Your task to perform on an android device: turn off location Image 0: 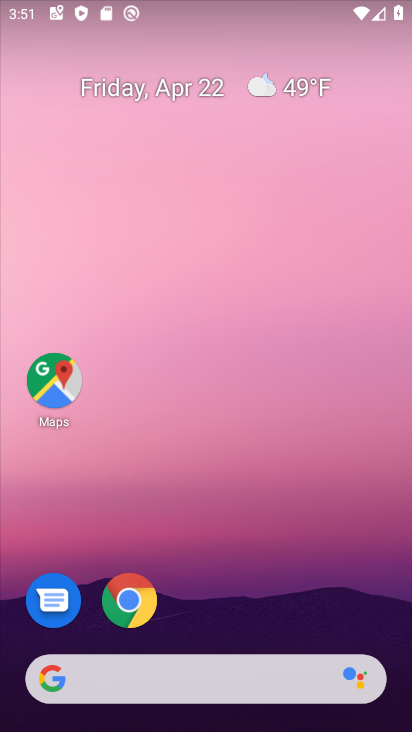
Step 0: drag from (222, 516) to (318, 30)
Your task to perform on an android device: turn off location Image 1: 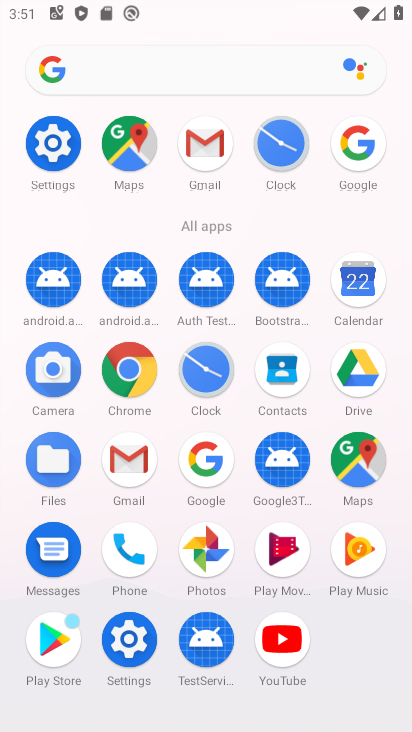
Step 1: drag from (156, 614) to (234, 387)
Your task to perform on an android device: turn off location Image 2: 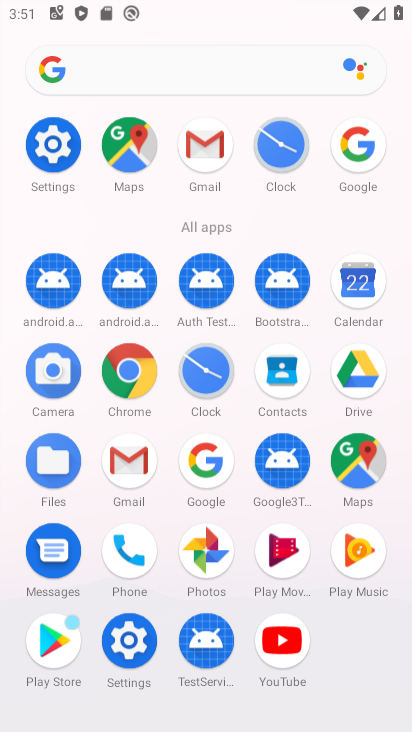
Step 2: click (134, 636)
Your task to perform on an android device: turn off location Image 3: 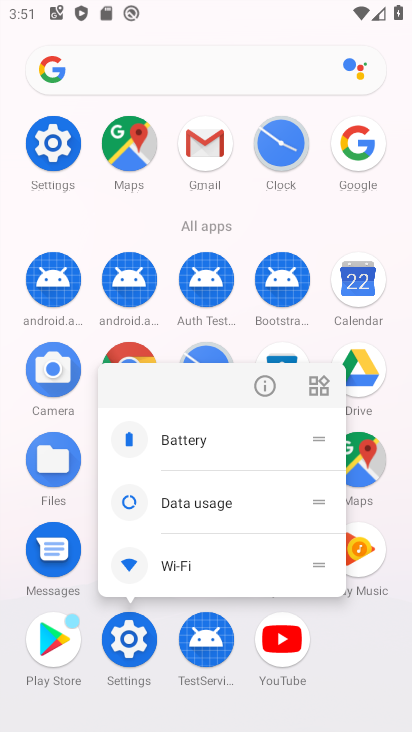
Step 3: click (141, 624)
Your task to perform on an android device: turn off location Image 4: 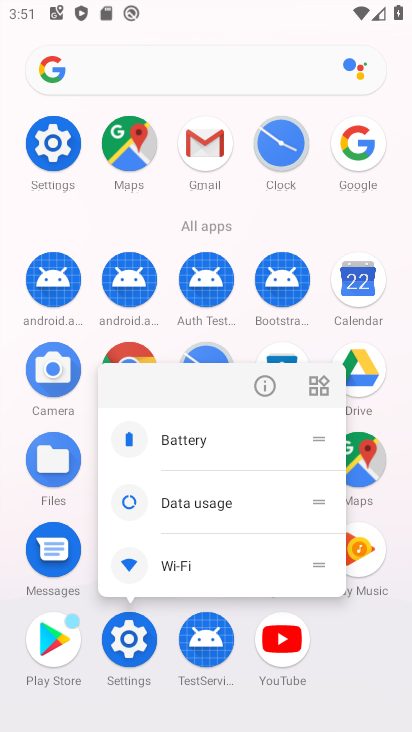
Step 4: click (128, 631)
Your task to perform on an android device: turn off location Image 5: 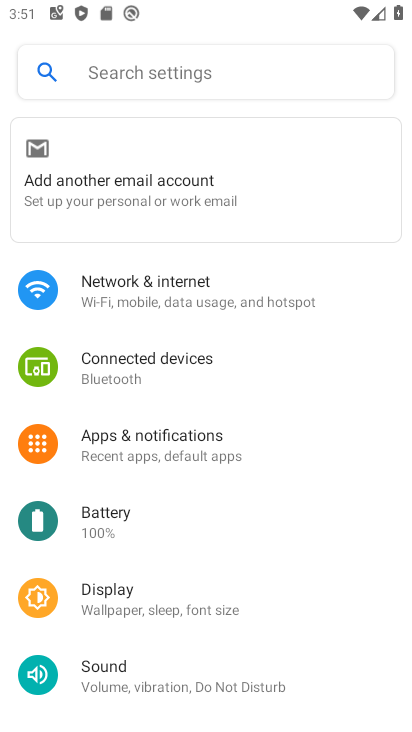
Step 5: drag from (151, 672) to (282, 274)
Your task to perform on an android device: turn off location Image 6: 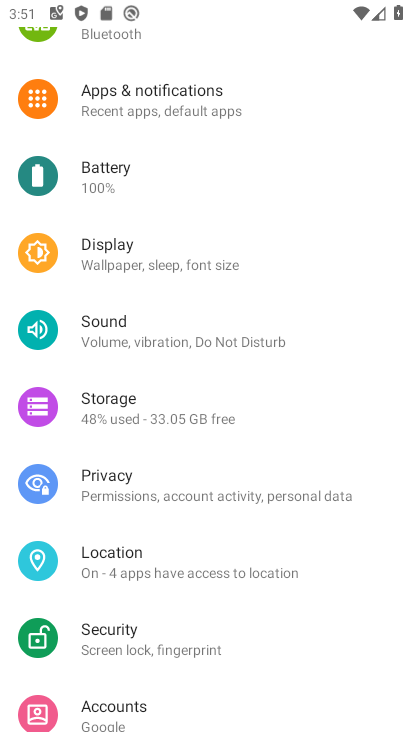
Step 6: click (146, 554)
Your task to perform on an android device: turn off location Image 7: 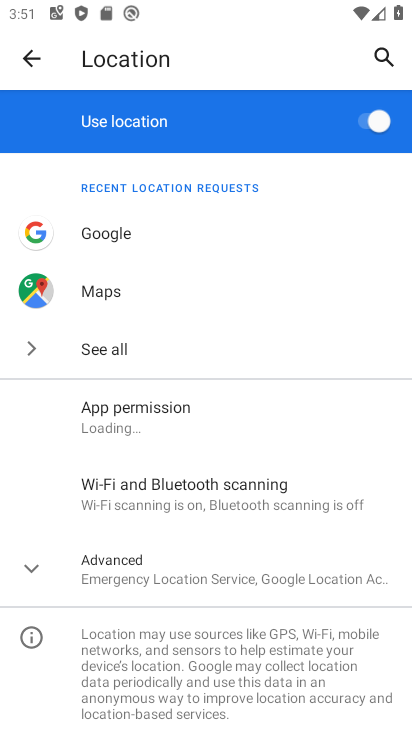
Step 7: click (359, 125)
Your task to perform on an android device: turn off location Image 8: 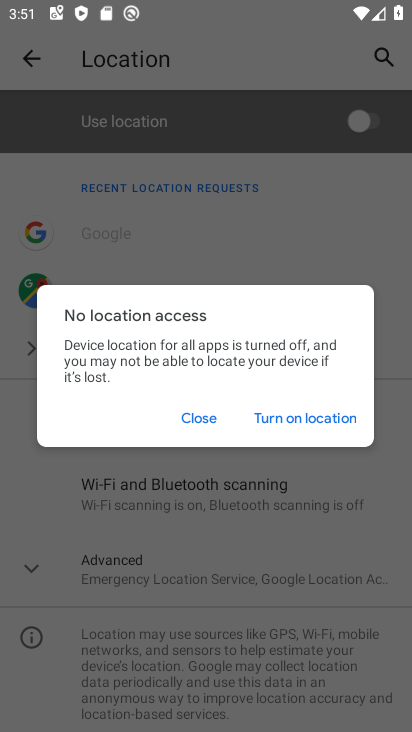
Step 8: task complete